Your task to perform on an android device: Search for pizza restaurants on Maps Image 0: 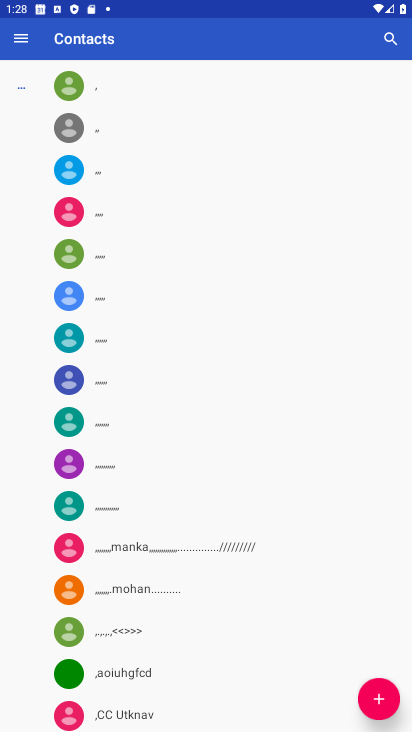
Step 0: press home button
Your task to perform on an android device: Search for pizza restaurants on Maps Image 1: 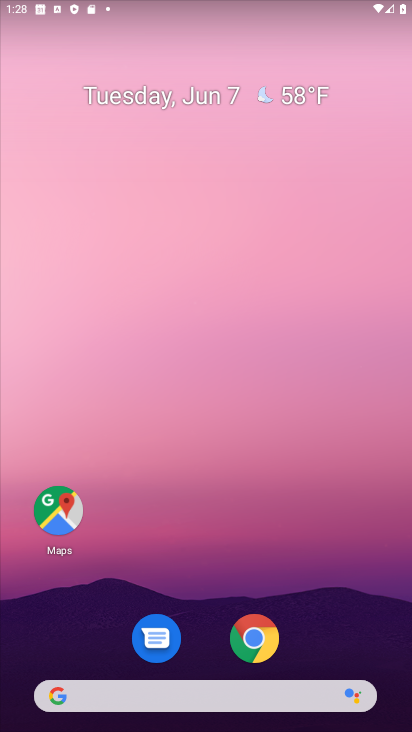
Step 1: drag from (195, 602) to (232, 237)
Your task to perform on an android device: Search for pizza restaurants on Maps Image 2: 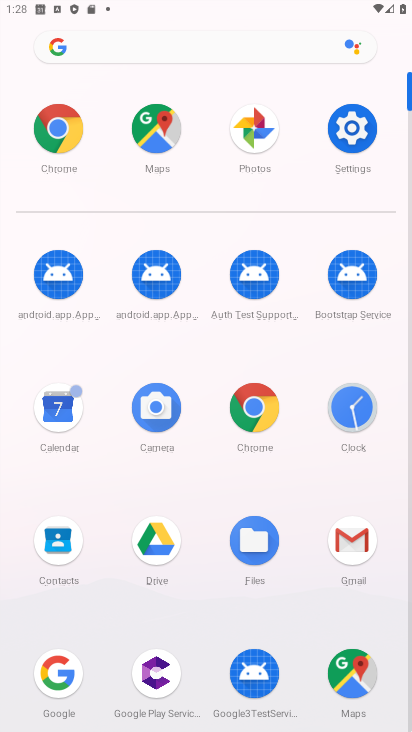
Step 2: drag from (218, 592) to (235, 247)
Your task to perform on an android device: Search for pizza restaurants on Maps Image 3: 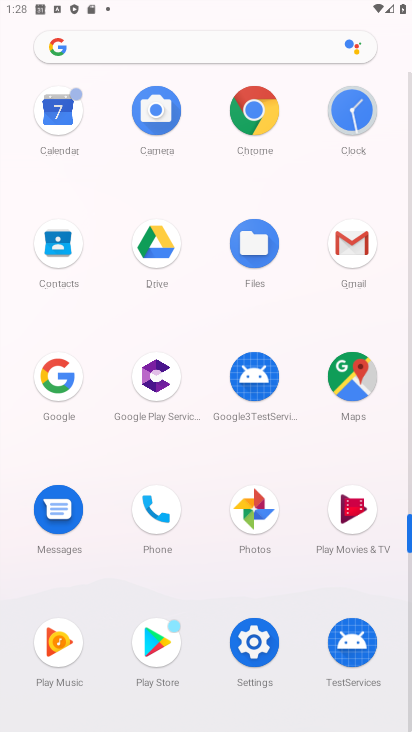
Step 3: drag from (308, 612) to (370, 229)
Your task to perform on an android device: Search for pizza restaurants on Maps Image 4: 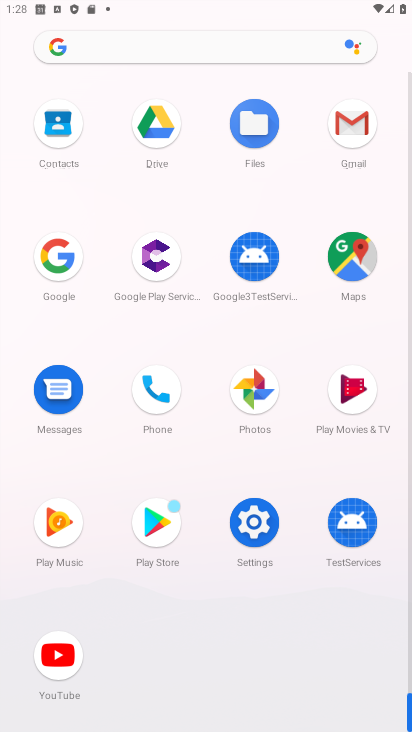
Step 4: click (357, 267)
Your task to perform on an android device: Search for pizza restaurants on Maps Image 5: 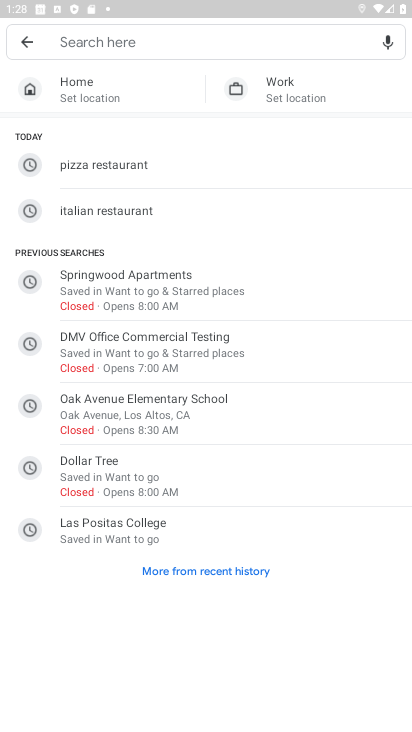
Step 5: click (95, 45)
Your task to perform on an android device: Search for pizza restaurants on Maps Image 6: 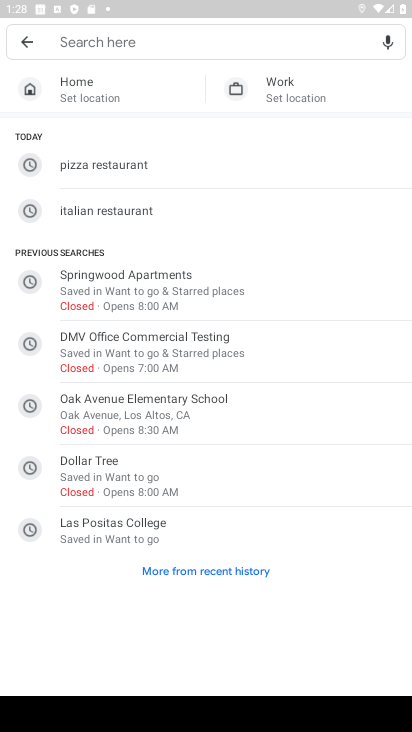
Step 6: type "pizza restaurants "
Your task to perform on an android device: Search for pizza restaurants on Maps Image 7: 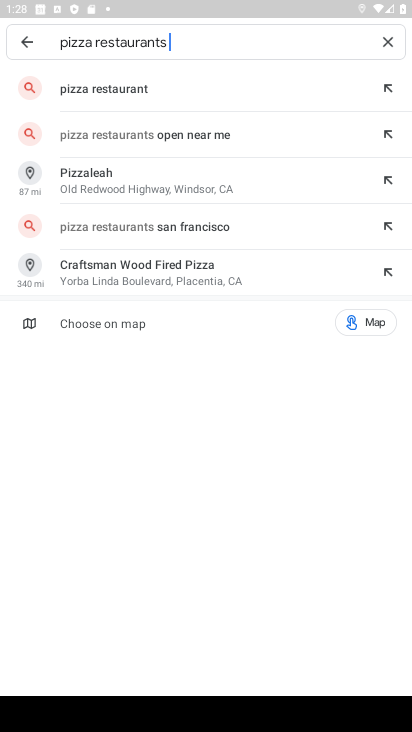
Step 7: click (135, 106)
Your task to perform on an android device: Search for pizza restaurants on Maps Image 8: 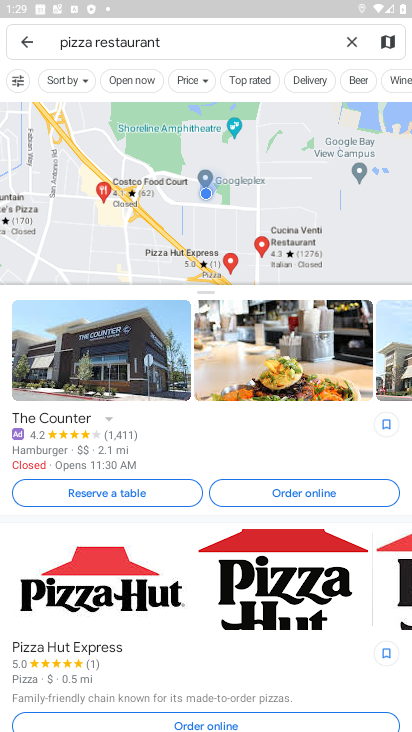
Step 8: task complete